Your task to perform on an android device: When is my next meeting? Image 0: 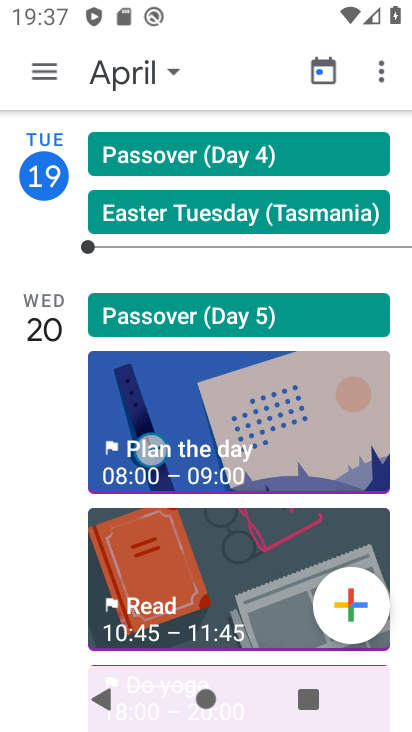
Step 0: click (276, 422)
Your task to perform on an android device: When is my next meeting? Image 1: 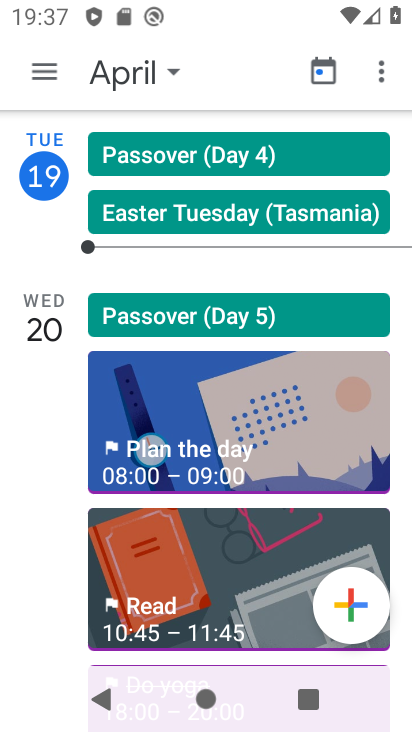
Step 1: click (276, 422)
Your task to perform on an android device: When is my next meeting? Image 2: 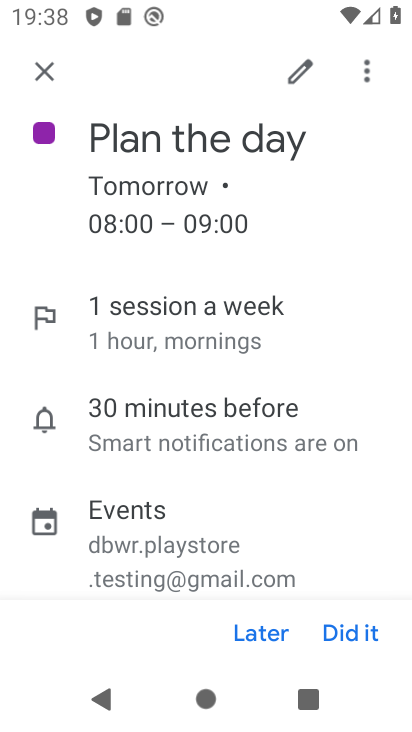
Step 2: task complete